Your task to perform on an android device: stop showing notifications on the lock screen Image 0: 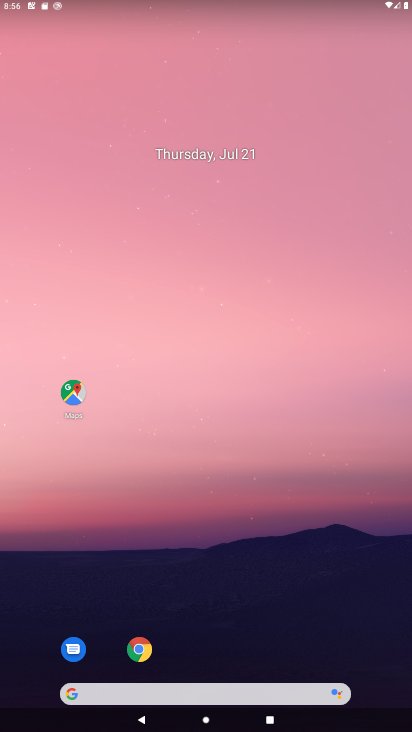
Step 0: drag from (176, 636) to (173, 86)
Your task to perform on an android device: stop showing notifications on the lock screen Image 1: 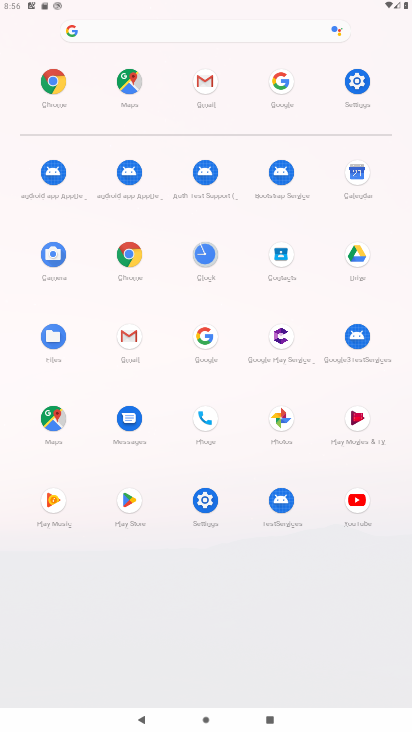
Step 1: click (358, 82)
Your task to perform on an android device: stop showing notifications on the lock screen Image 2: 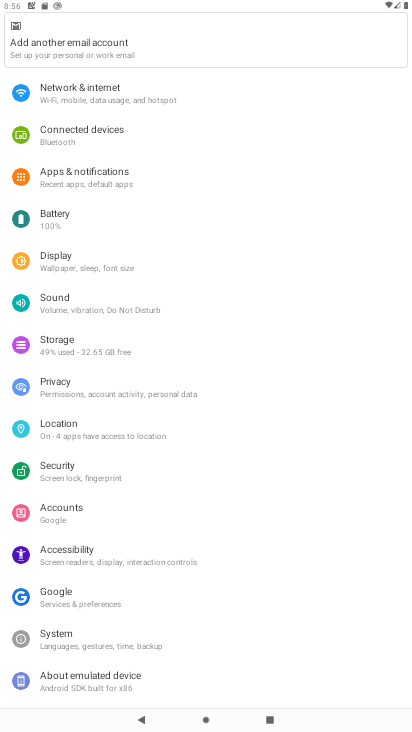
Step 2: click (98, 182)
Your task to perform on an android device: stop showing notifications on the lock screen Image 3: 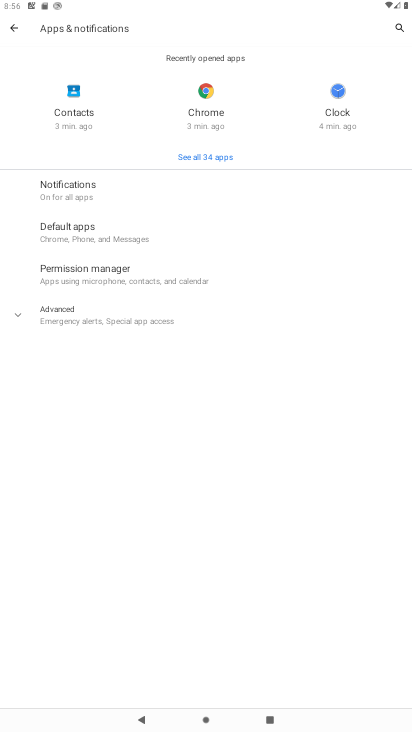
Step 3: click (86, 196)
Your task to perform on an android device: stop showing notifications on the lock screen Image 4: 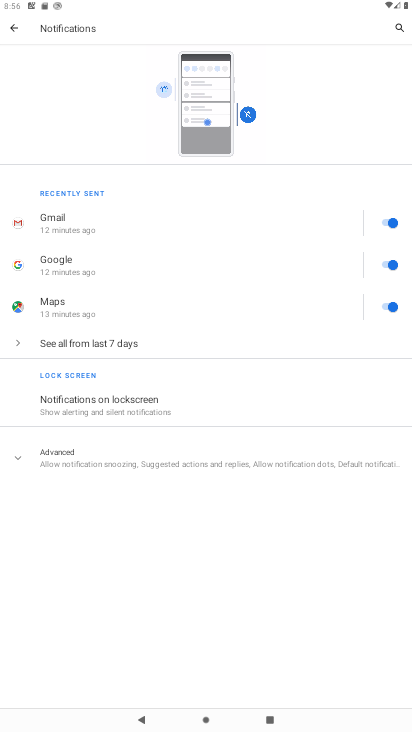
Step 4: click (79, 402)
Your task to perform on an android device: stop showing notifications on the lock screen Image 5: 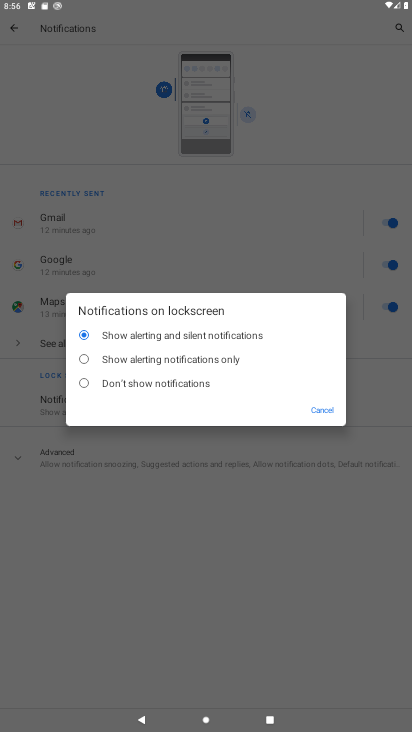
Step 5: click (83, 382)
Your task to perform on an android device: stop showing notifications on the lock screen Image 6: 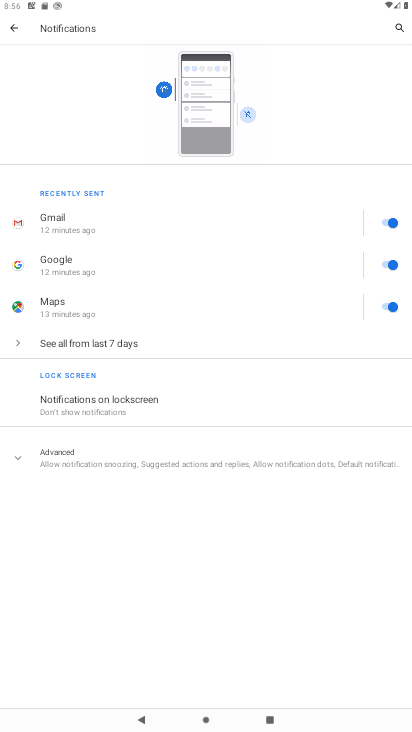
Step 6: task complete